Your task to perform on an android device: Go to Reddit.com Image 0: 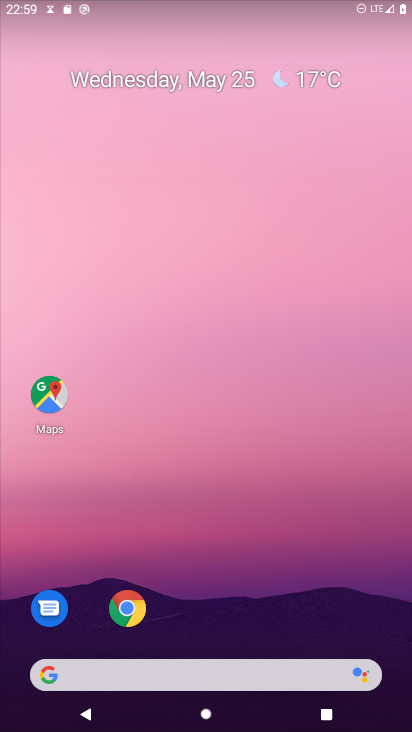
Step 0: click (131, 606)
Your task to perform on an android device: Go to Reddit.com Image 1: 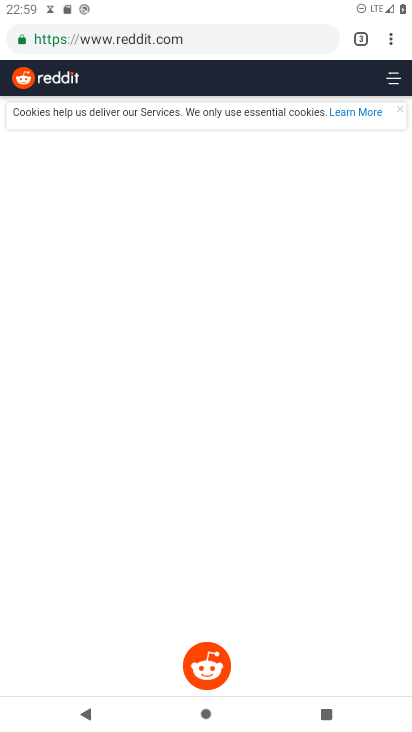
Step 1: task complete